Your task to perform on an android device: turn off smart reply in the gmail app Image 0: 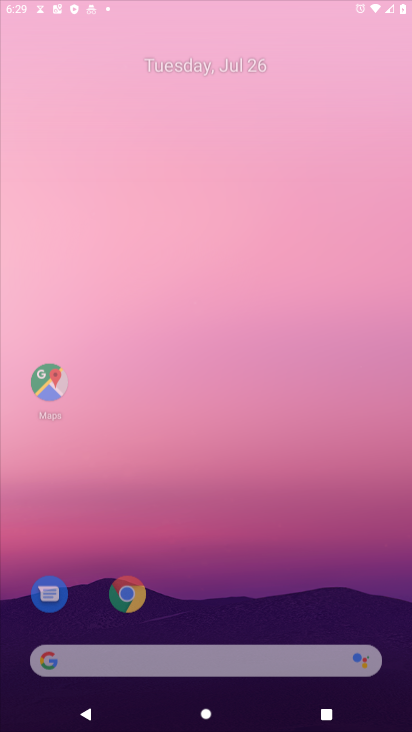
Step 0: press home button
Your task to perform on an android device: turn off smart reply in the gmail app Image 1: 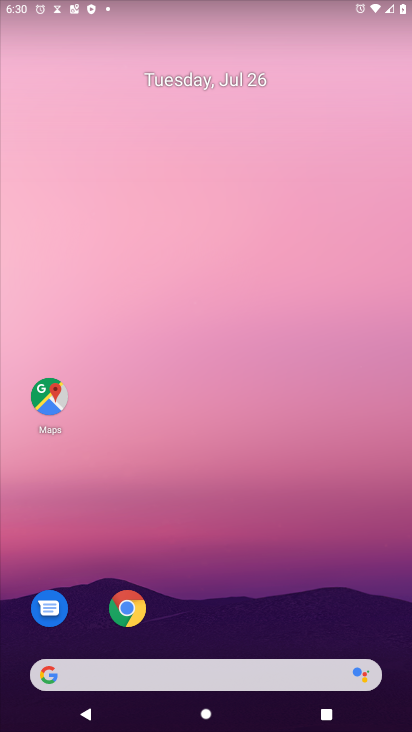
Step 1: drag from (247, 632) to (234, 130)
Your task to perform on an android device: turn off smart reply in the gmail app Image 2: 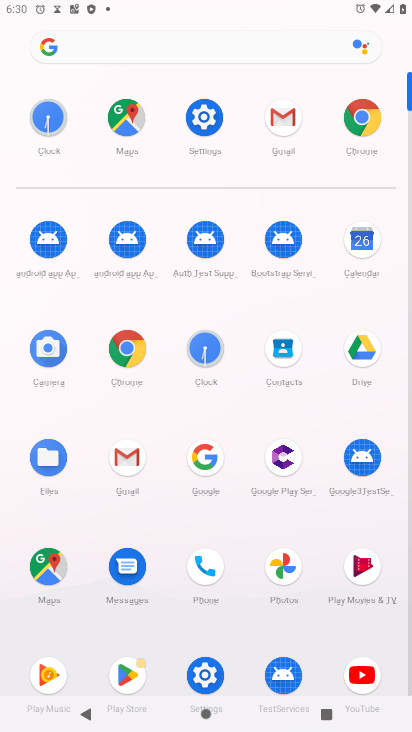
Step 2: click (288, 109)
Your task to perform on an android device: turn off smart reply in the gmail app Image 3: 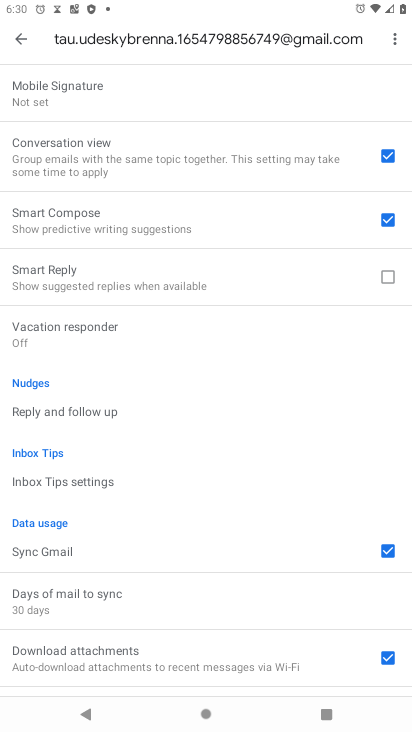
Step 3: task complete